Your task to perform on an android device: see creations saved in the google photos Image 0: 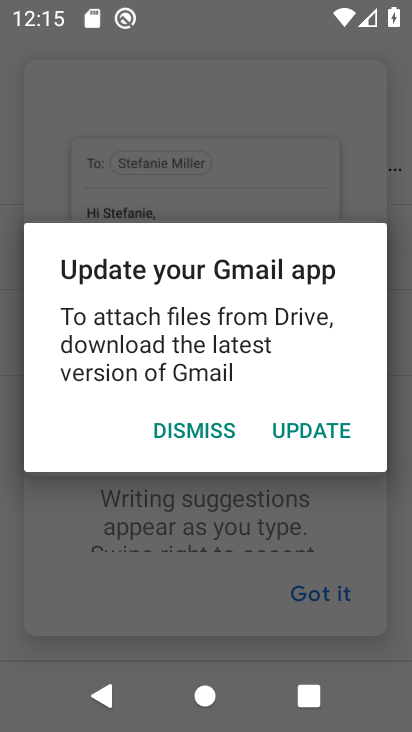
Step 0: press home button
Your task to perform on an android device: see creations saved in the google photos Image 1: 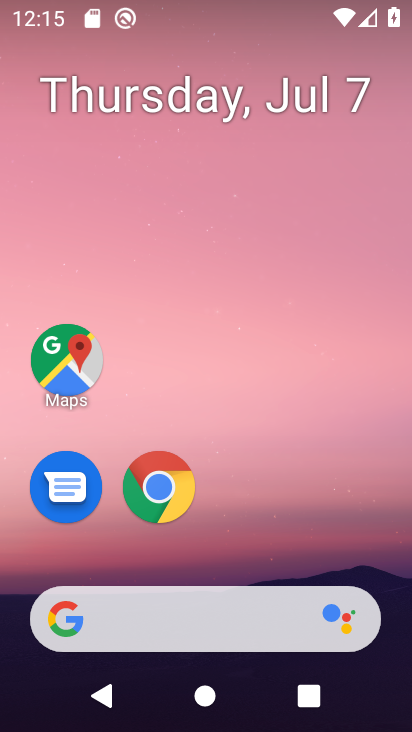
Step 1: drag from (386, 568) to (383, 215)
Your task to perform on an android device: see creations saved in the google photos Image 2: 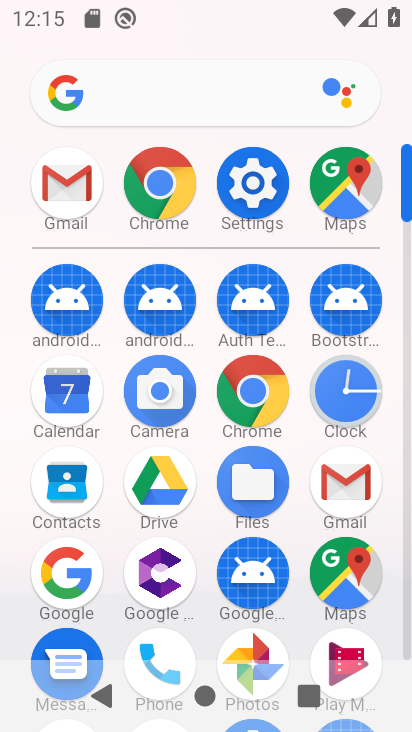
Step 2: drag from (394, 545) to (380, 321)
Your task to perform on an android device: see creations saved in the google photos Image 3: 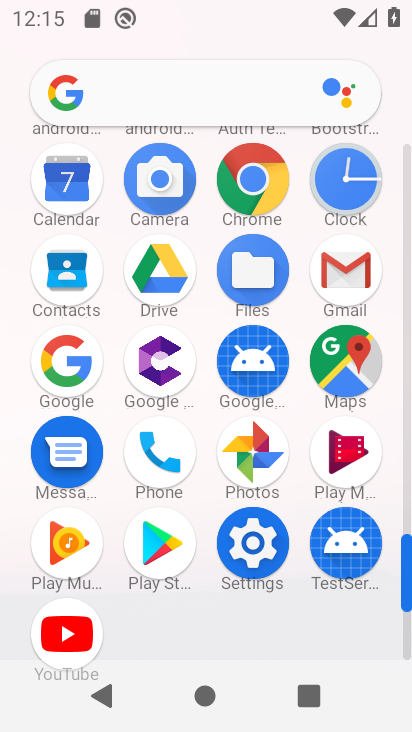
Step 3: click (269, 448)
Your task to perform on an android device: see creations saved in the google photos Image 4: 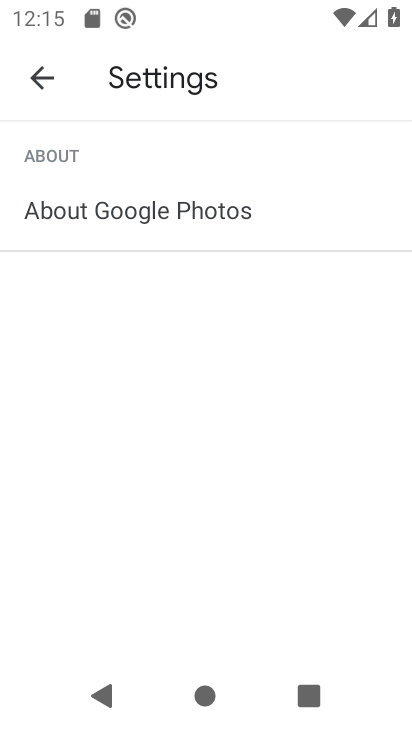
Step 4: press back button
Your task to perform on an android device: see creations saved in the google photos Image 5: 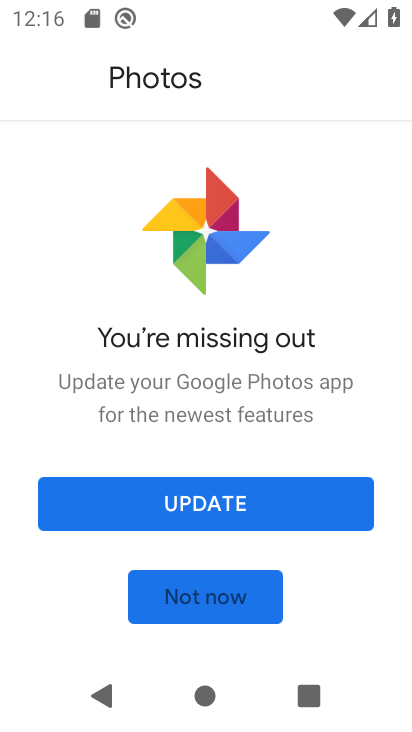
Step 5: click (356, 492)
Your task to perform on an android device: see creations saved in the google photos Image 6: 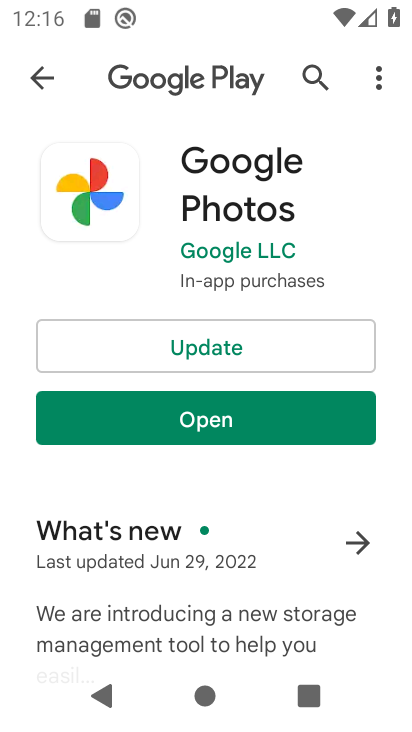
Step 6: click (233, 357)
Your task to perform on an android device: see creations saved in the google photos Image 7: 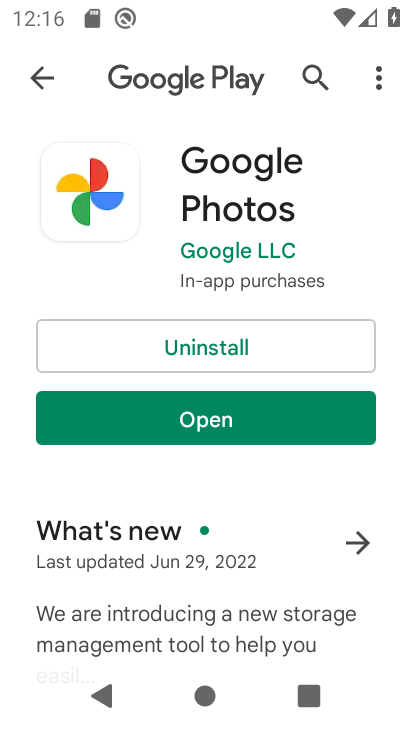
Step 7: click (328, 420)
Your task to perform on an android device: see creations saved in the google photos Image 8: 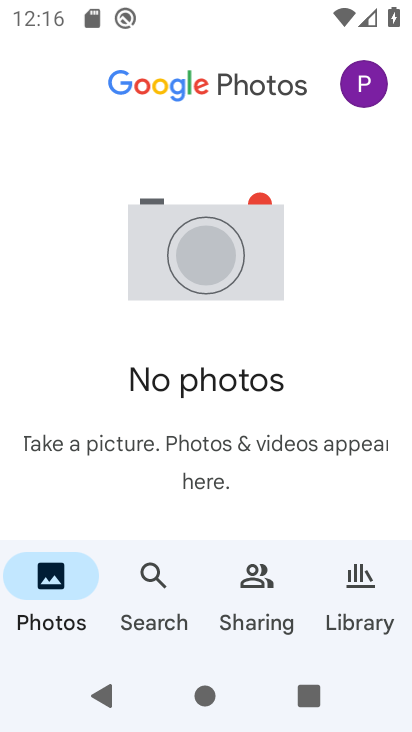
Step 8: click (144, 622)
Your task to perform on an android device: see creations saved in the google photos Image 9: 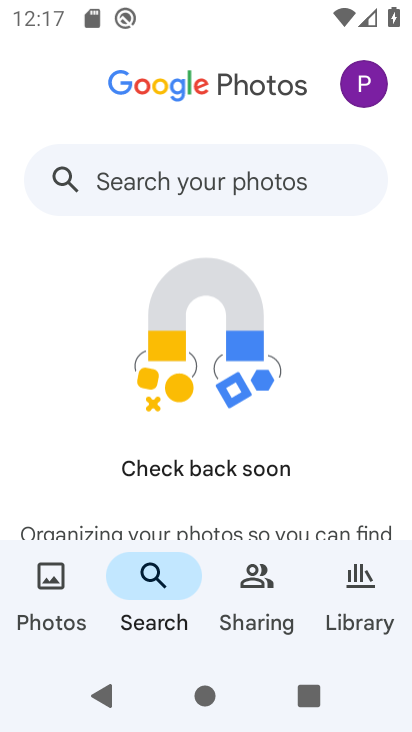
Step 9: click (210, 187)
Your task to perform on an android device: see creations saved in the google photos Image 10: 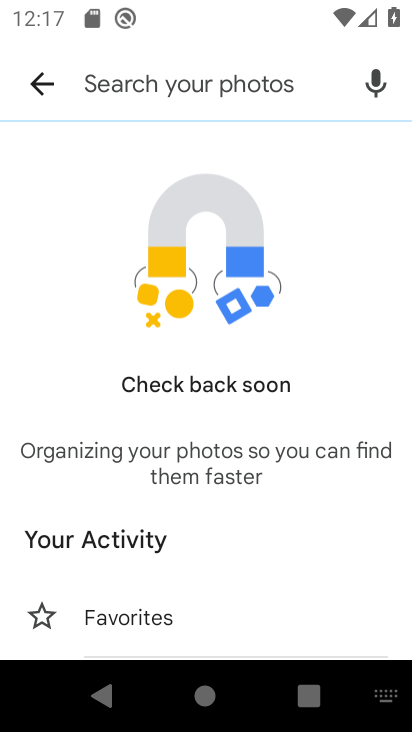
Step 10: drag from (272, 559) to (252, 343)
Your task to perform on an android device: see creations saved in the google photos Image 11: 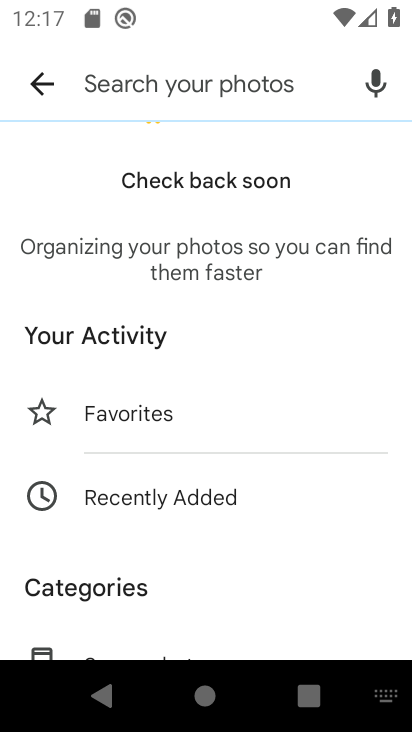
Step 11: drag from (280, 570) to (282, 397)
Your task to perform on an android device: see creations saved in the google photos Image 12: 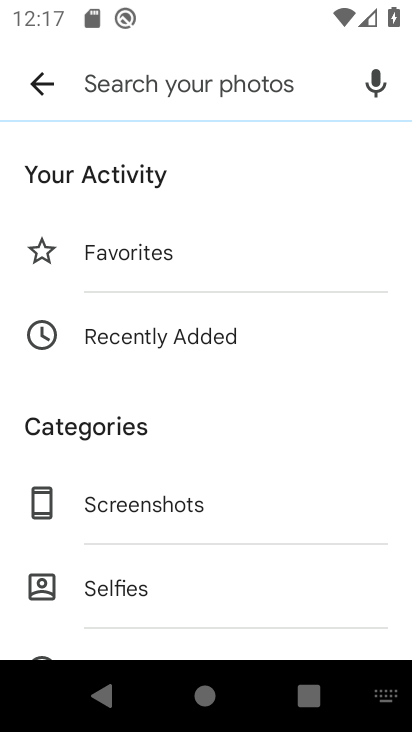
Step 12: drag from (276, 537) to (285, 331)
Your task to perform on an android device: see creations saved in the google photos Image 13: 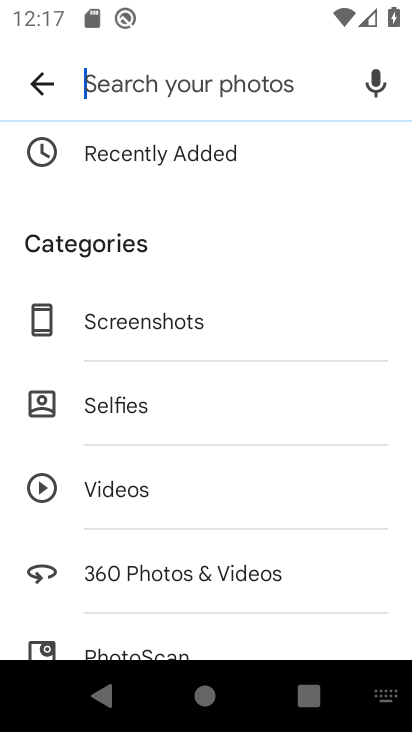
Step 13: drag from (308, 517) to (309, 341)
Your task to perform on an android device: see creations saved in the google photos Image 14: 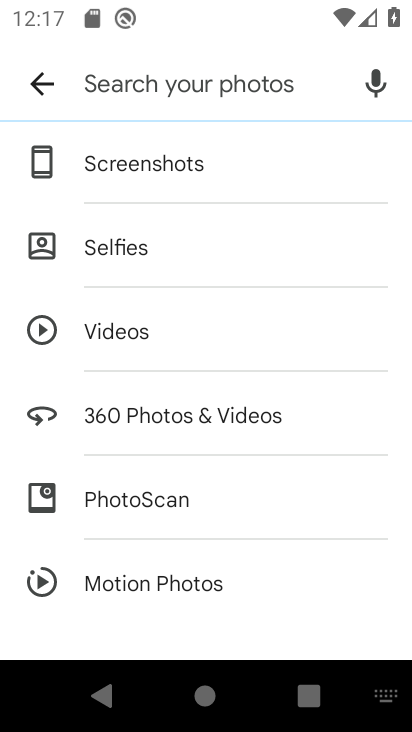
Step 14: drag from (333, 533) to (323, 378)
Your task to perform on an android device: see creations saved in the google photos Image 15: 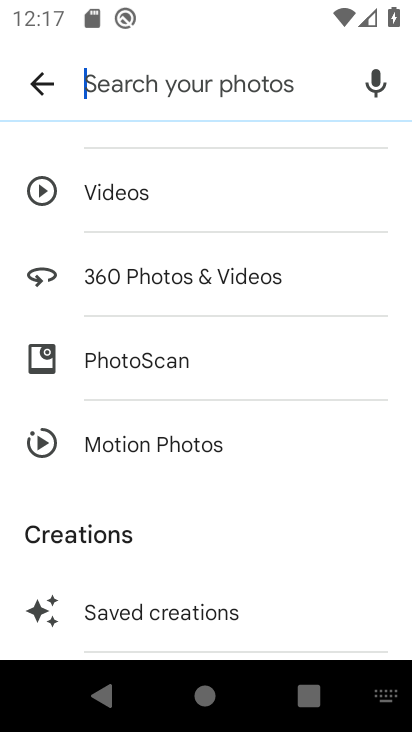
Step 15: click (232, 617)
Your task to perform on an android device: see creations saved in the google photos Image 16: 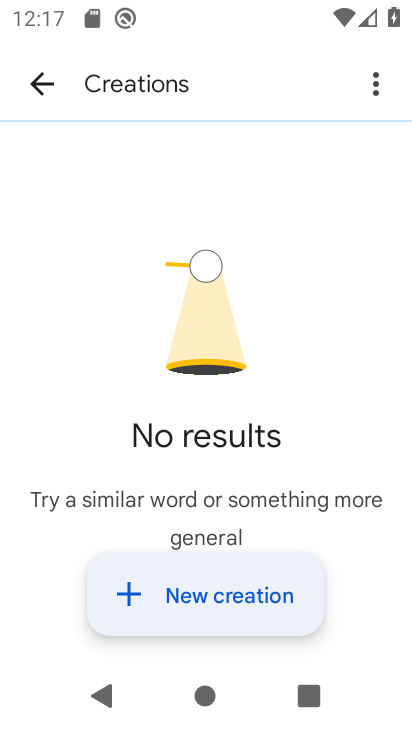
Step 16: task complete